Your task to perform on an android device: turn notification dots off Image 0: 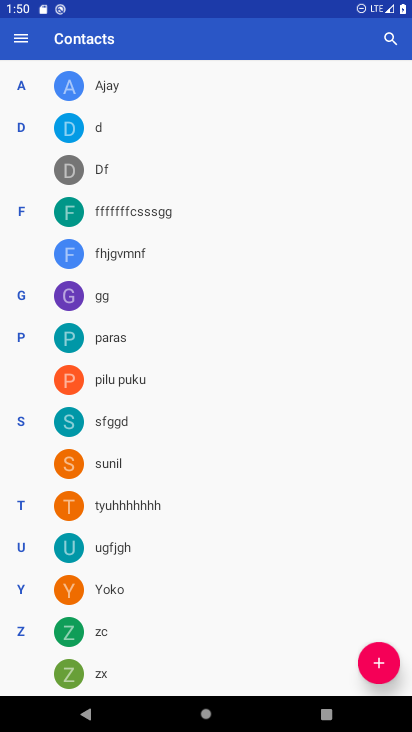
Step 0: press home button
Your task to perform on an android device: turn notification dots off Image 1: 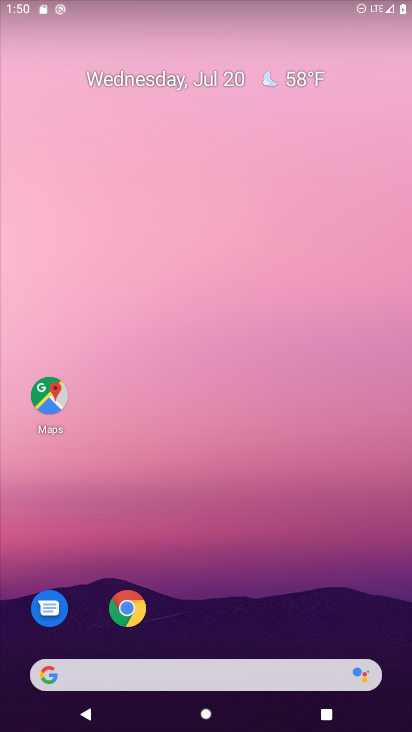
Step 1: drag from (240, 703) to (239, 161)
Your task to perform on an android device: turn notification dots off Image 2: 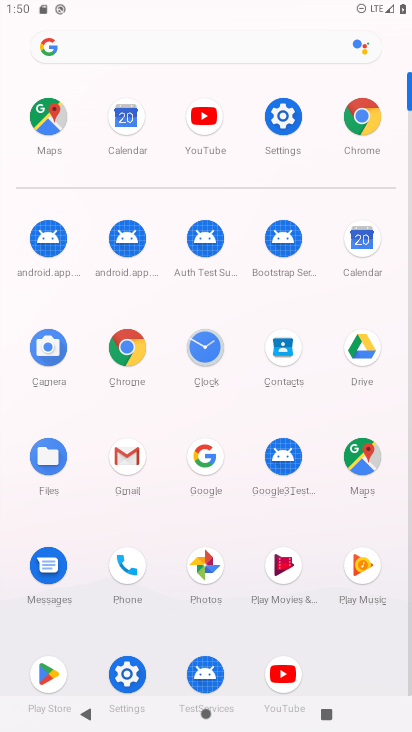
Step 2: click (286, 116)
Your task to perform on an android device: turn notification dots off Image 3: 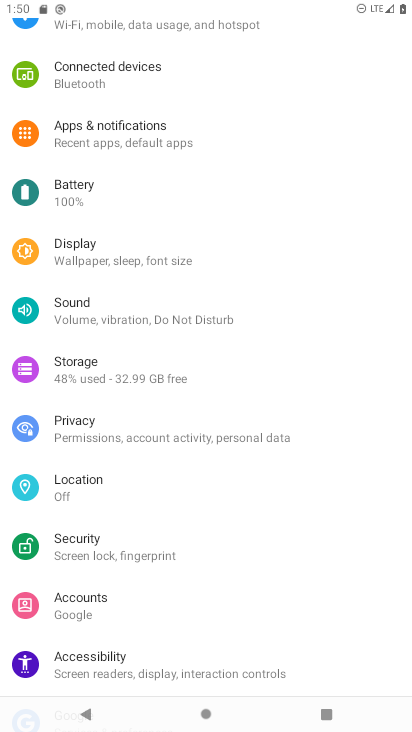
Step 3: click (113, 136)
Your task to perform on an android device: turn notification dots off Image 4: 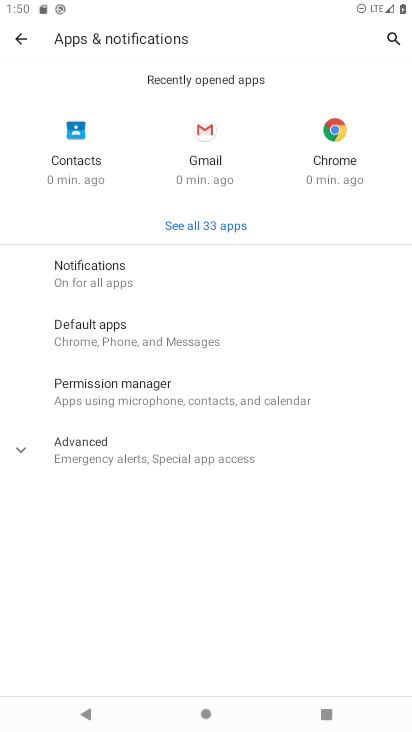
Step 4: click (83, 275)
Your task to perform on an android device: turn notification dots off Image 5: 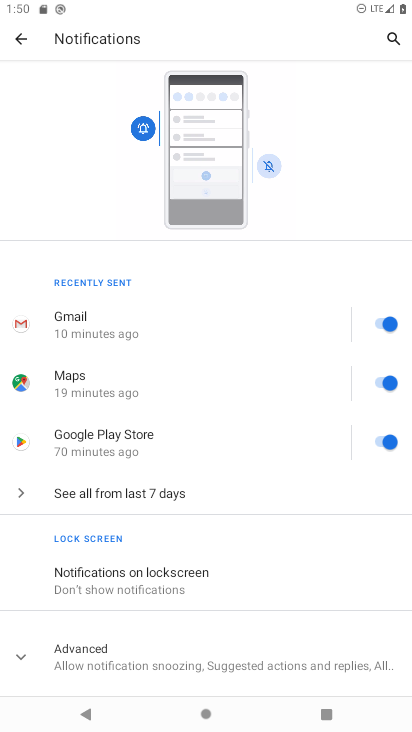
Step 5: drag from (147, 638) to (137, 388)
Your task to perform on an android device: turn notification dots off Image 6: 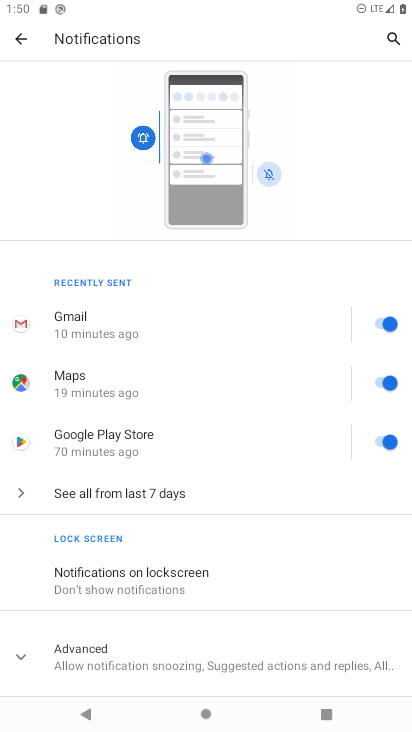
Step 6: click (174, 659)
Your task to perform on an android device: turn notification dots off Image 7: 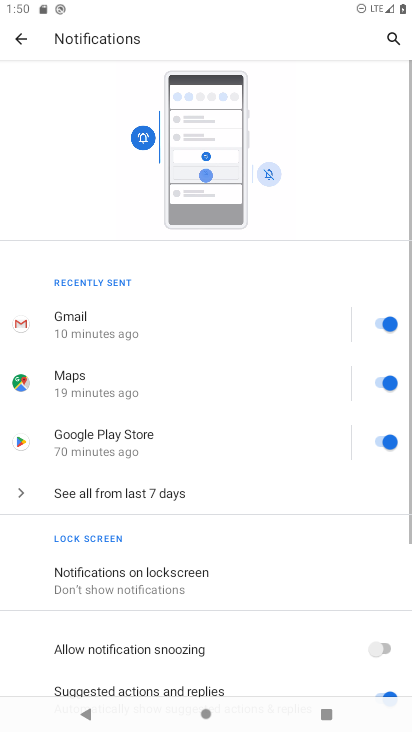
Step 7: task complete